Your task to perform on an android device: add a label to a message in the gmail app Image 0: 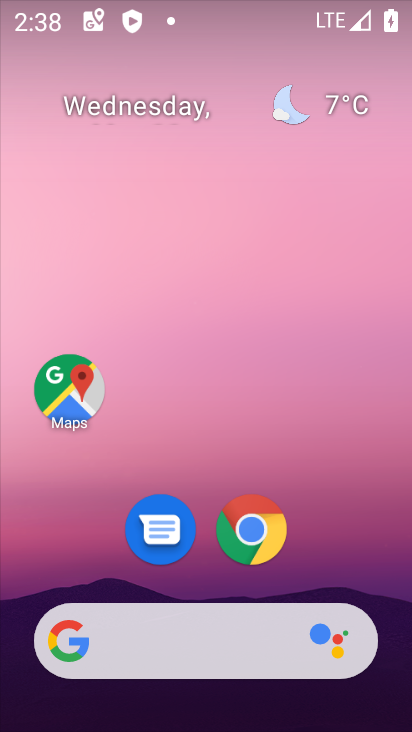
Step 0: drag from (359, 558) to (410, 122)
Your task to perform on an android device: add a label to a message in the gmail app Image 1: 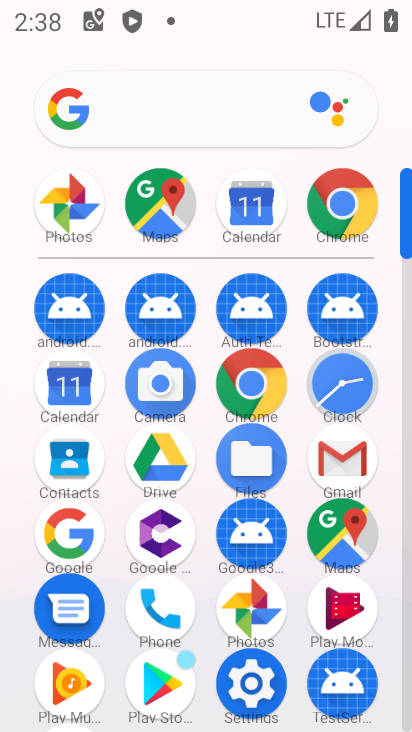
Step 1: click (343, 456)
Your task to perform on an android device: add a label to a message in the gmail app Image 2: 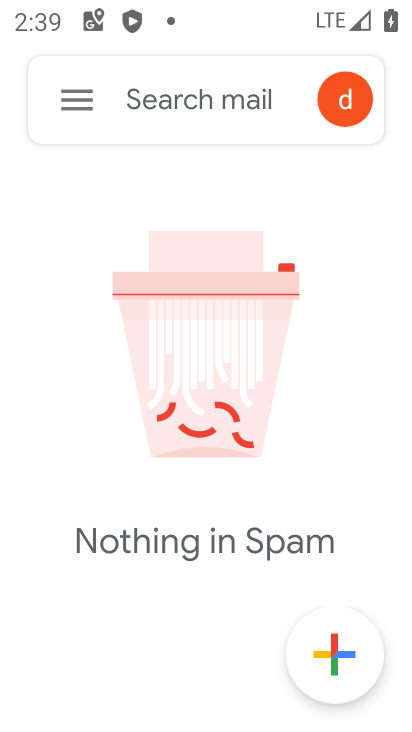
Step 2: click (72, 113)
Your task to perform on an android device: add a label to a message in the gmail app Image 3: 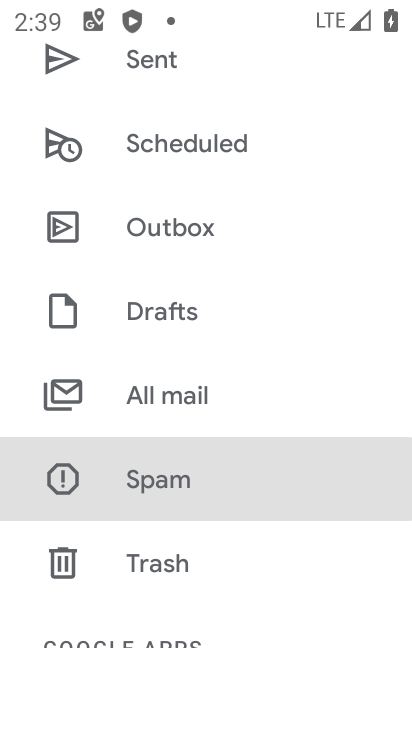
Step 3: drag from (96, 136) to (198, 518)
Your task to perform on an android device: add a label to a message in the gmail app Image 4: 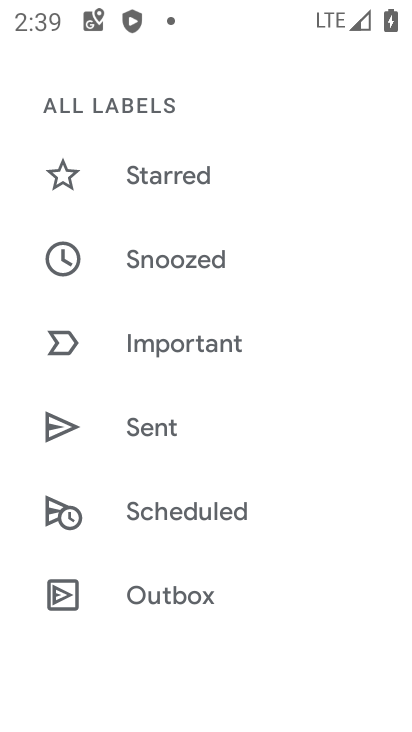
Step 4: drag from (214, 313) to (251, 572)
Your task to perform on an android device: add a label to a message in the gmail app Image 5: 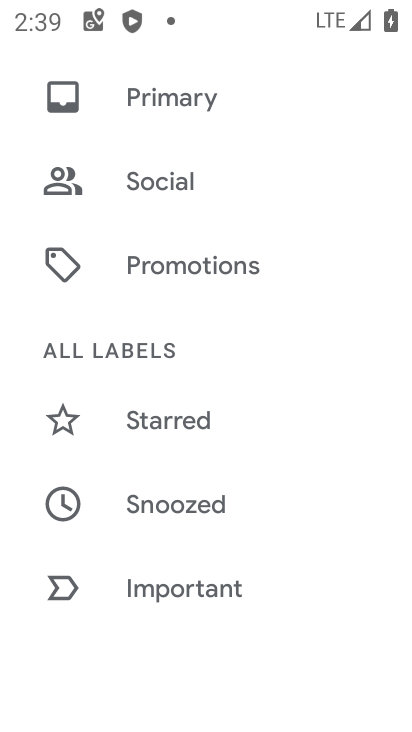
Step 5: drag from (237, 225) to (284, 594)
Your task to perform on an android device: add a label to a message in the gmail app Image 6: 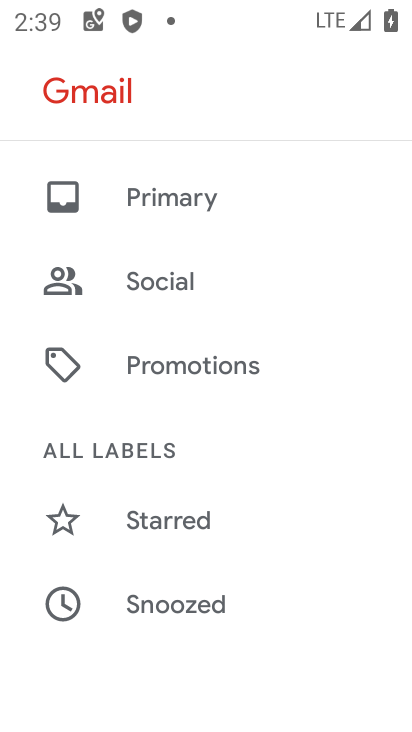
Step 6: drag from (249, 586) to (258, 195)
Your task to perform on an android device: add a label to a message in the gmail app Image 7: 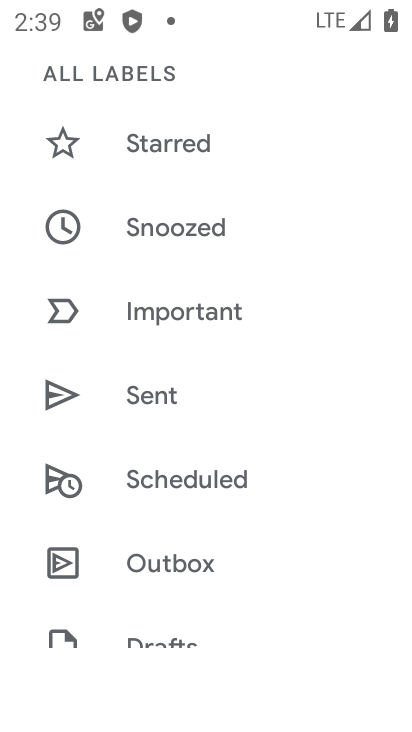
Step 7: drag from (235, 534) to (251, 143)
Your task to perform on an android device: add a label to a message in the gmail app Image 8: 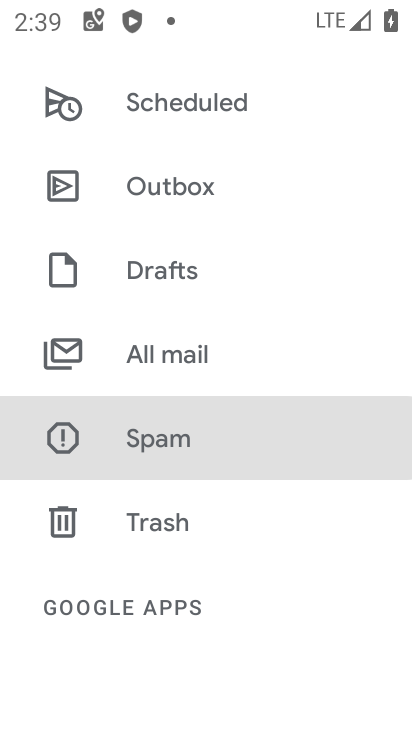
Step 8: click (184, 355)
Your task to perform on an android device: add a label to a message in the gmail app Image 9: 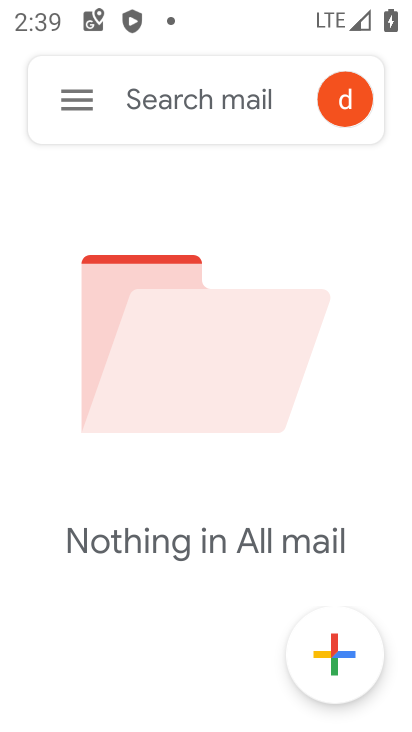
Step 9: task complete